Your task to perform on an android device: check android version Image 0: 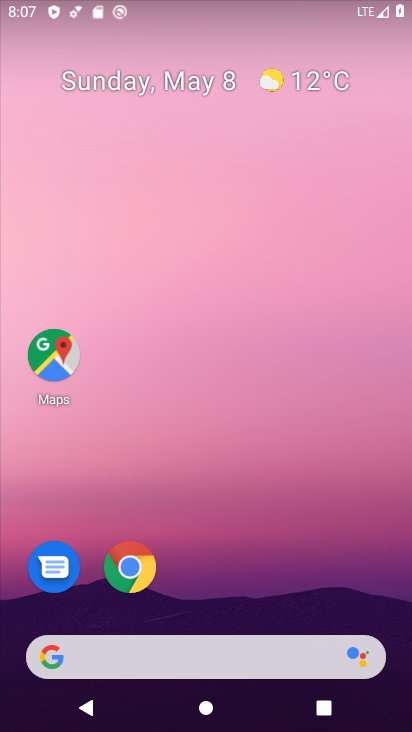
Step 0: drag from (297, 648) to (344, 22)
Your task to perform on an android device: check android version Image 1: 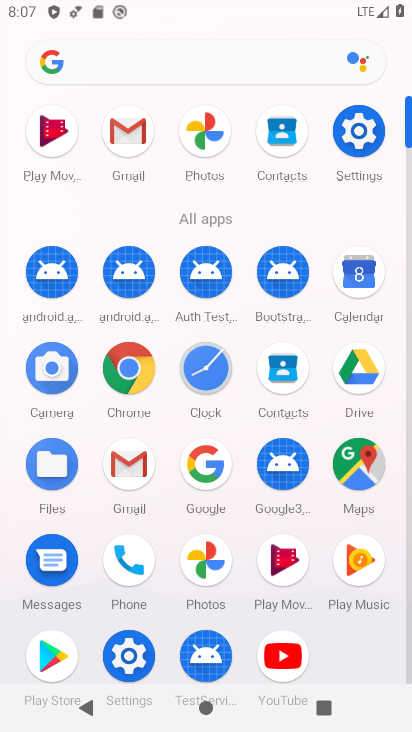
Step 1: click (145, 658)
Your task to perform on an android device: check android version Image 2: 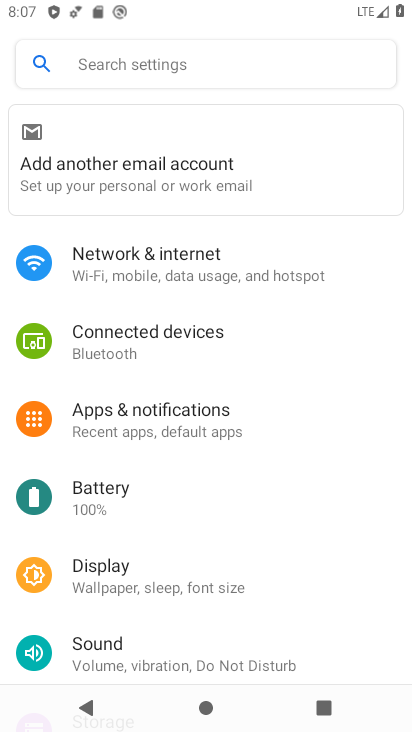
Step 2: drag from (195, 641) to (155, 40)
Your task to perform on an android device: check android version Image 3: 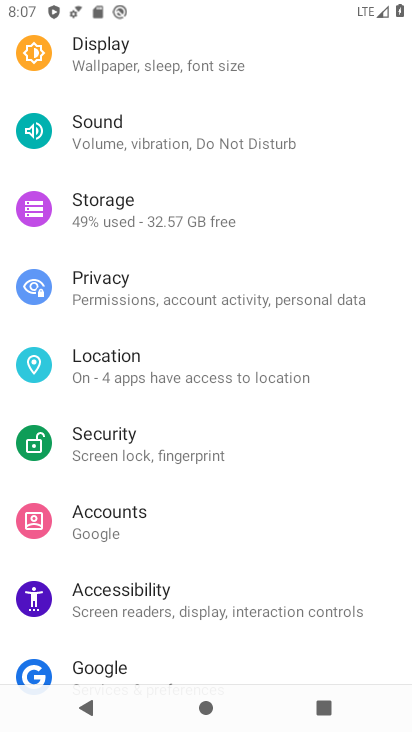
Step 3: drag from (164, 625) to (111, 51)
Your task to perform on an android device: check android version Image 4: 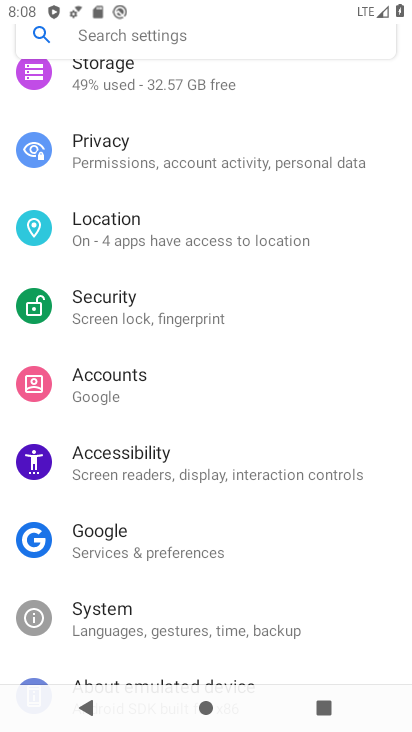
Step 4: drag from (188, 515) to (200, 137)
Your task to perform on an android device: check android version Image 5: 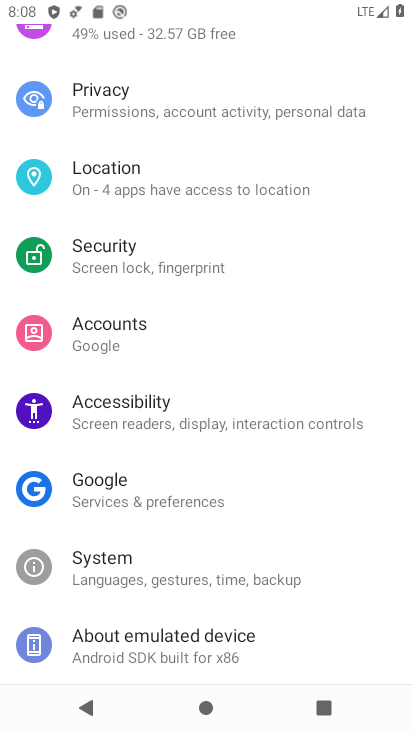
Step 5: click (237, 665)
Your task to perform on an android device: check android version Image 6: 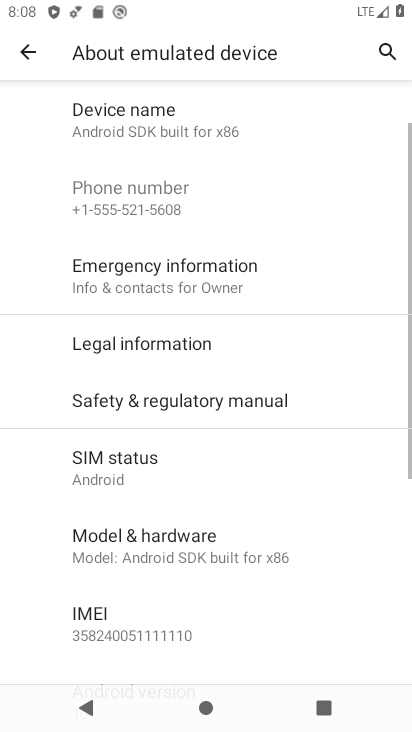
Step 6: drag from (129, 613) to (173, 358)
Your task to perform on an android device: check android version Image 7: 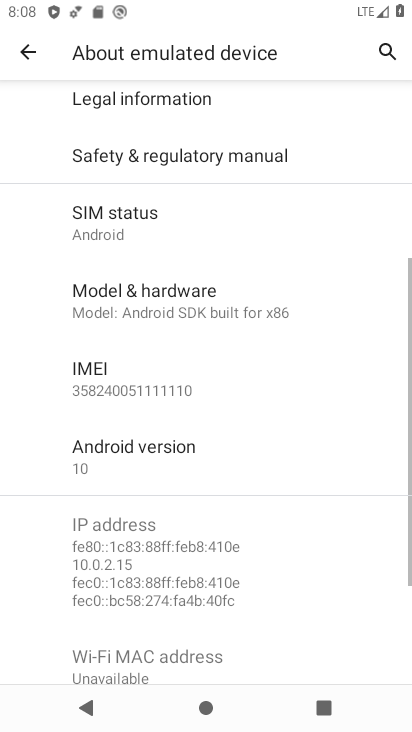
Step 7: click (212, 464)
Your task to perform on an android device: check android version Image 8: 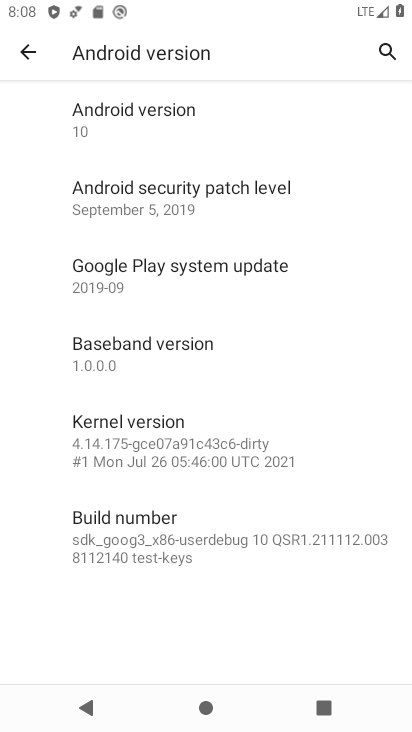
Step 8: task complete